Your task to perform on an android device: turn off sleep mode Image 0: 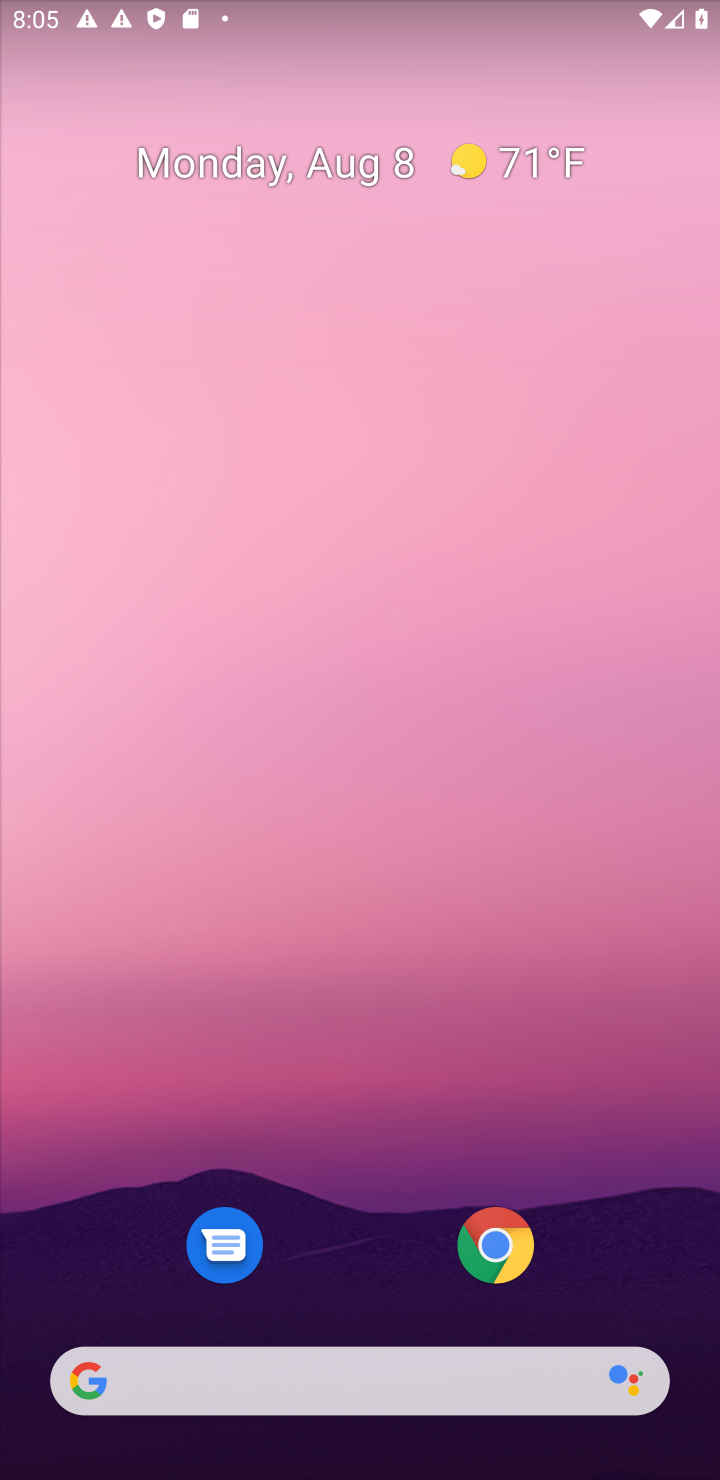
Step 0: drag from (316, 1283) to (449, 3)
Your task to perform on an android device: turn off sleep mode Image 1: 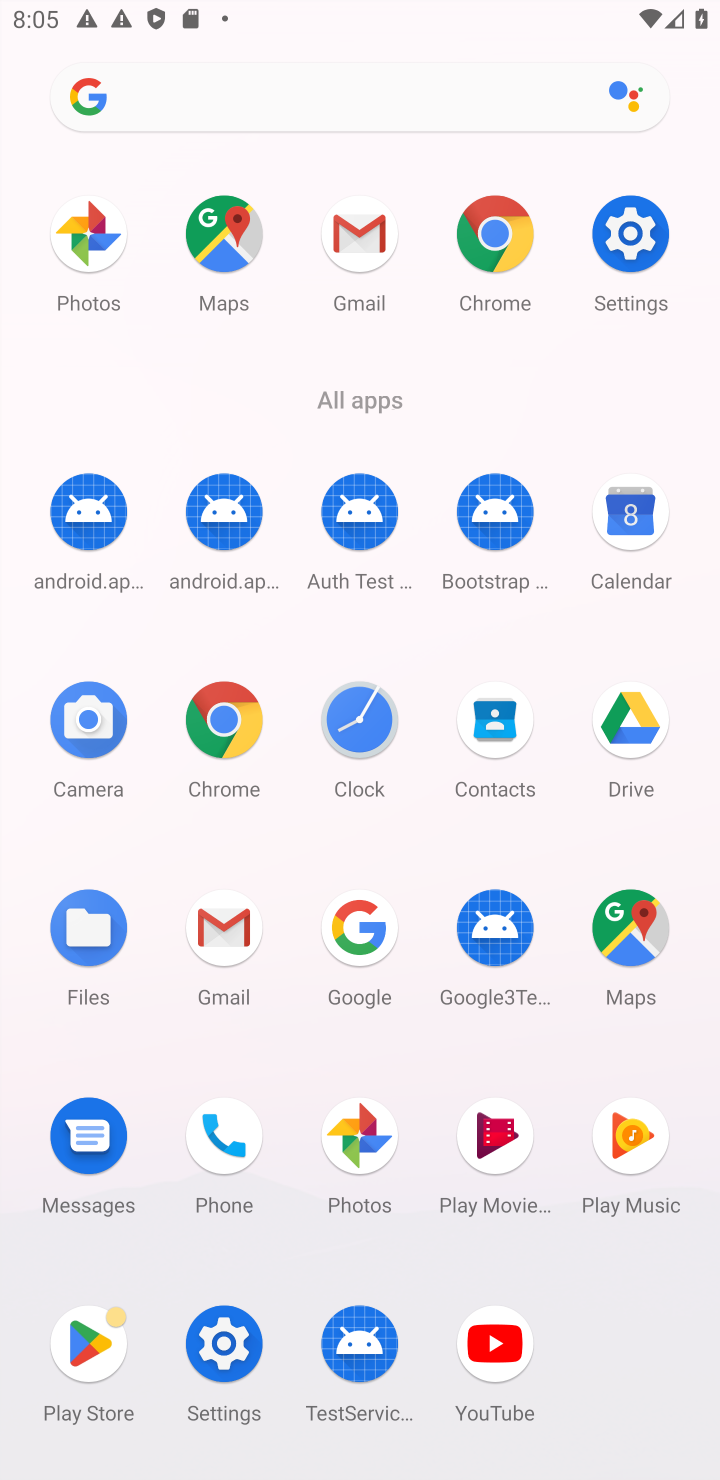
Step 1: click (225, 1355)
Your task to perform on an android device: turn off sleep mode Image 2: 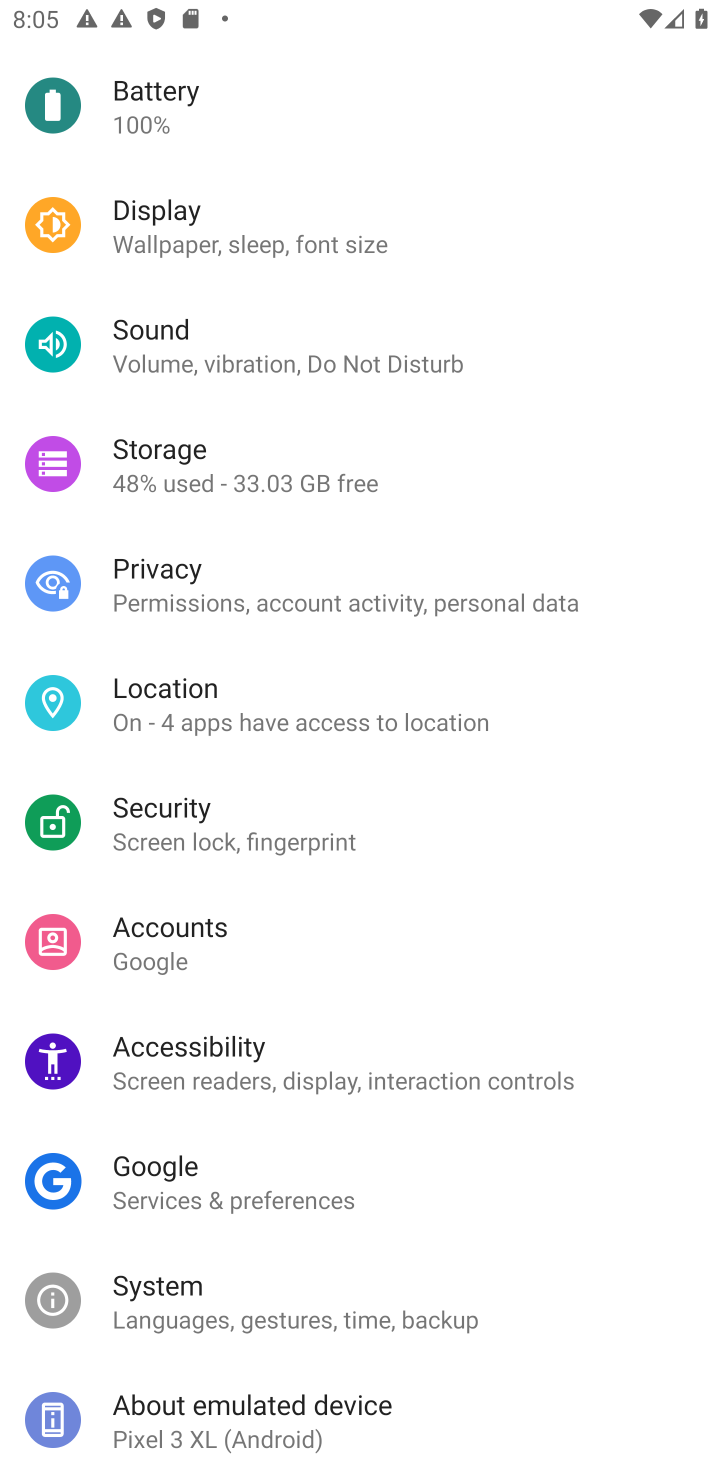
Step 2: drag from (375, 494) to (379, 799)
Your task to perform on an android device: turn off sleep mode Image 3: 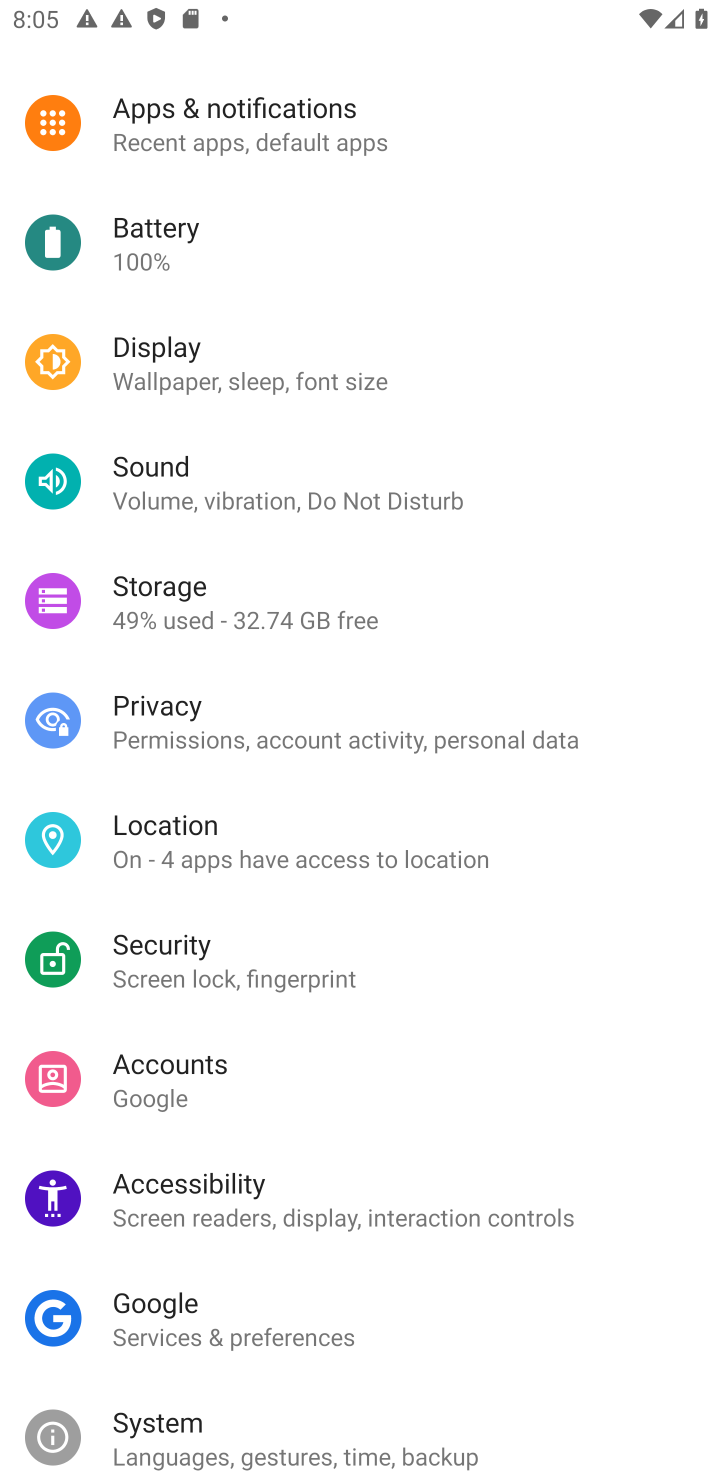
Step 3: drag from (310, 228) to (293, 1015)
Your task to perform on an android device: turn off sleep mode Image 4: 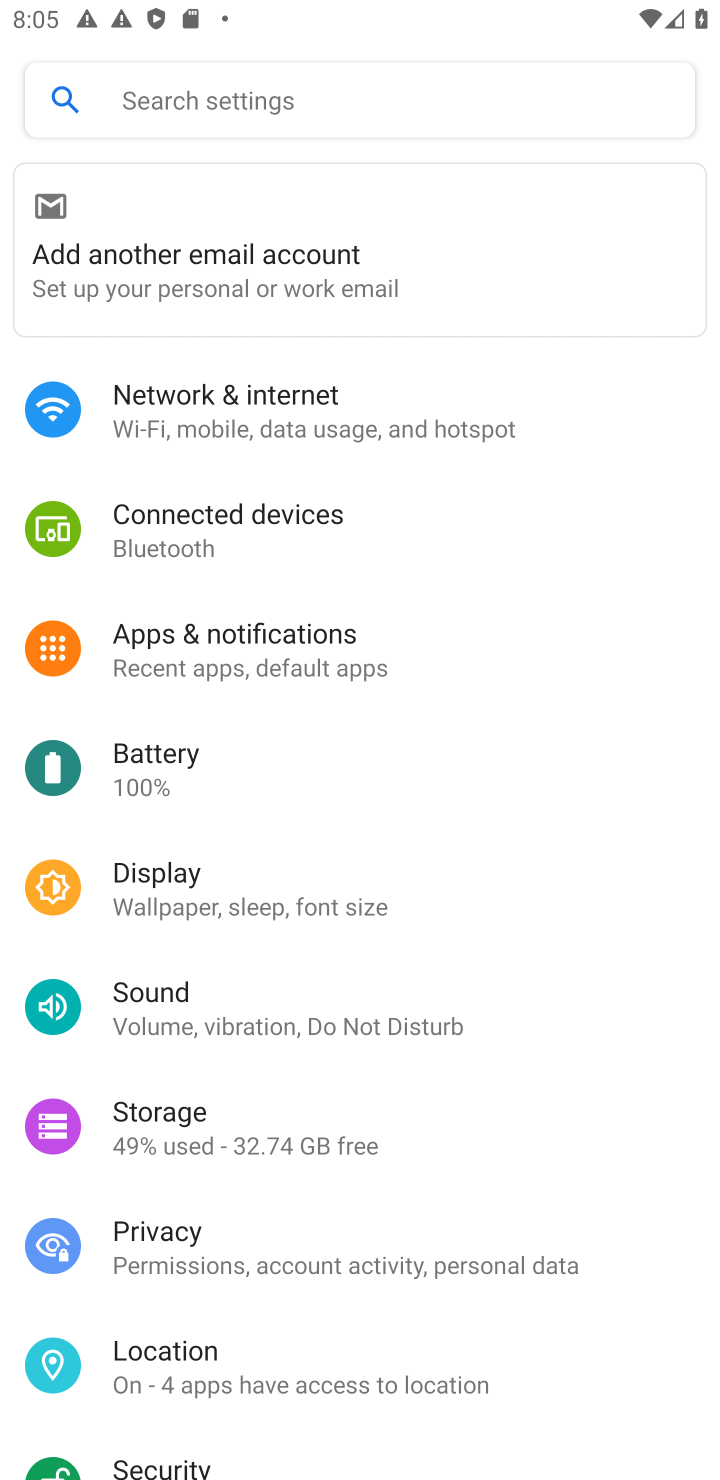
Step 4: click (380, 94)
Your task to perform on an android device: turn off sleep mode Image 5: 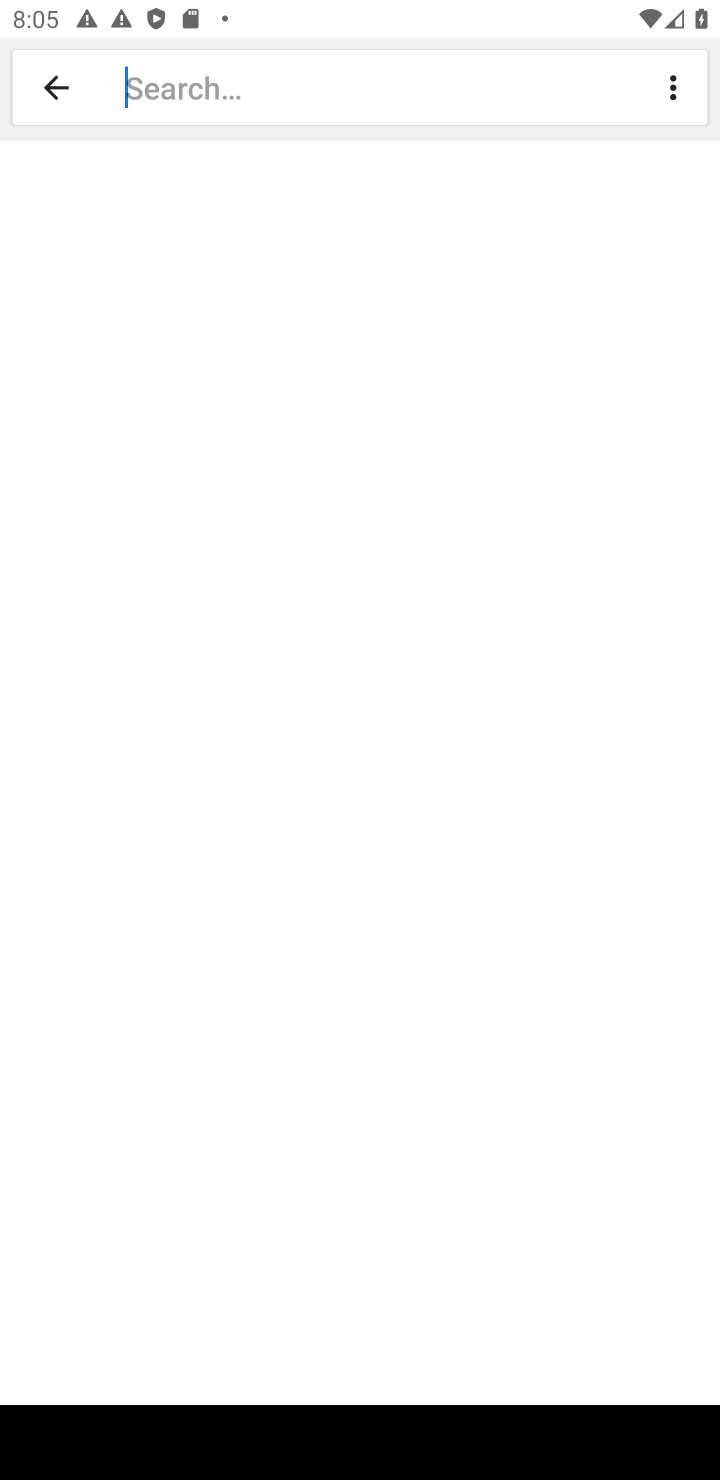
Step 5: type "sleep mode"
Your task to perform on an android device: turn off sleep mode Image 6: 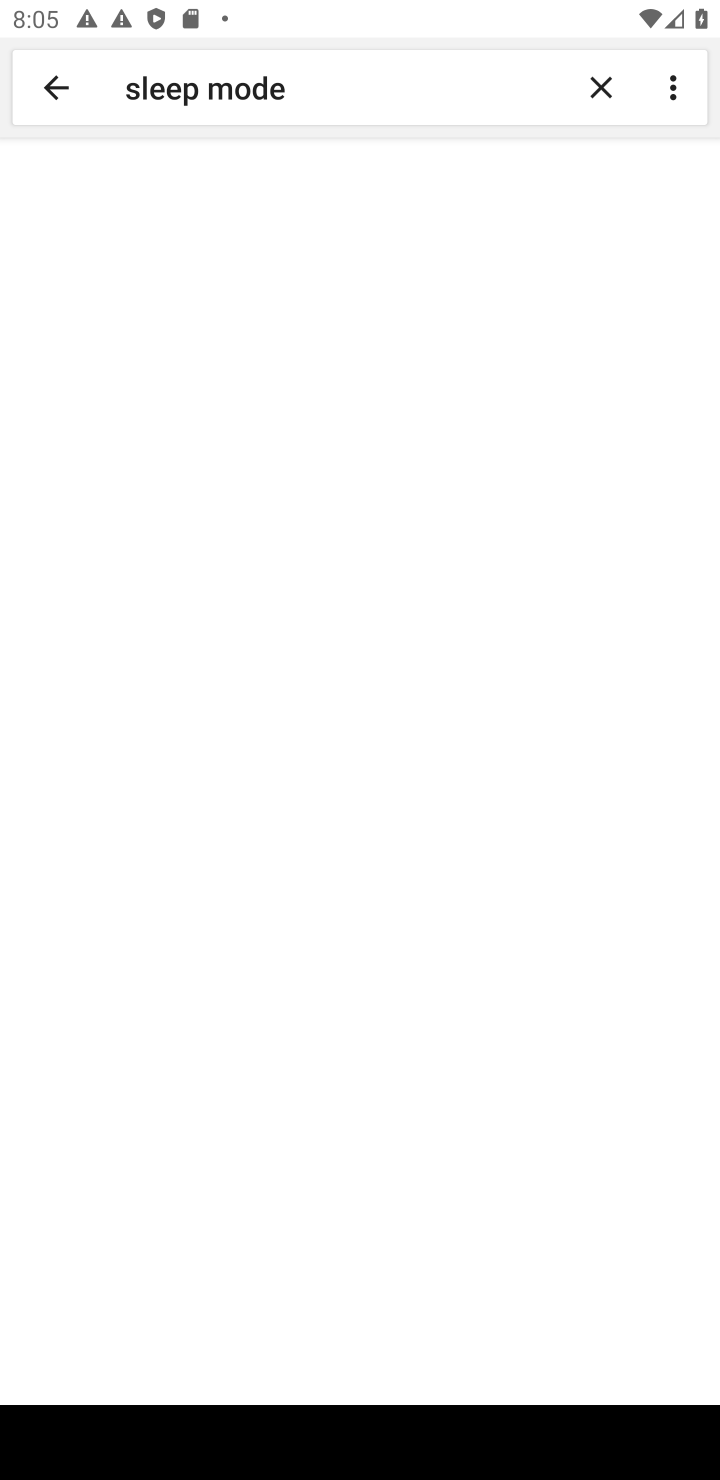
Step 6: task complete